Your task to perform on an android device: toggle pop-ups in chrome Image 0: 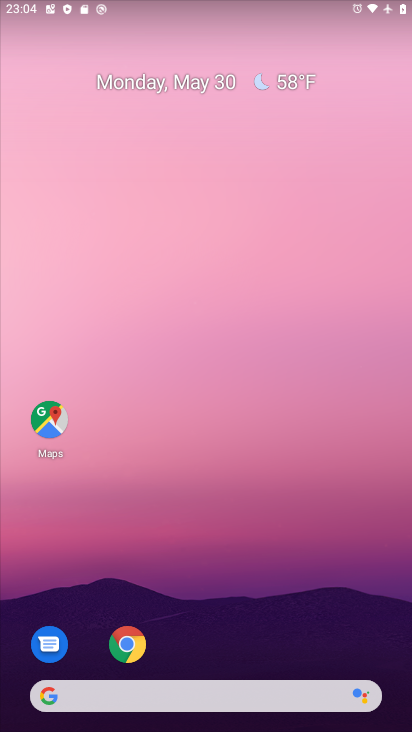
Step 0: click (133, 646)
Your task to perform on an android device: toggle pop-ups in chrome Image 1: 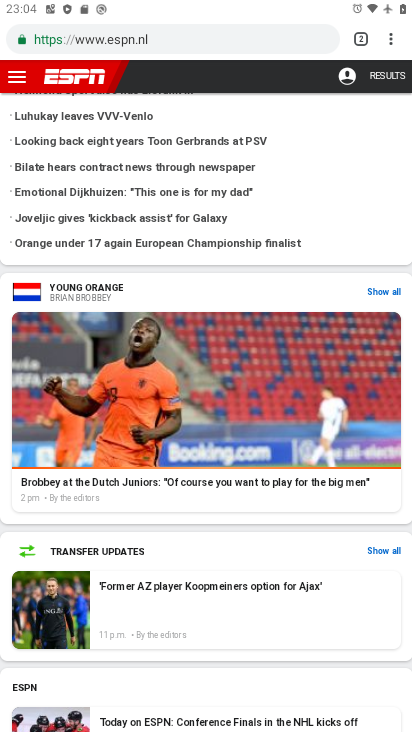
Step 1: click (388, 39)
Your task to perform on an android device: toggle pop-ups in chrome Image 2: 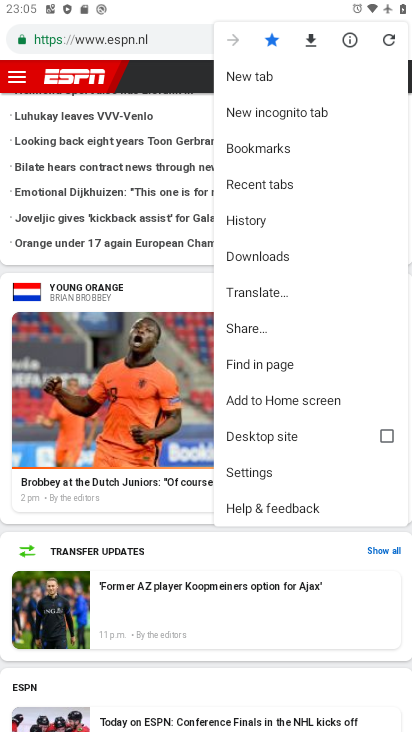
Step 2: click (264, 471)
Your task to perform on an android device: toggle pop-ups in chrome Image 3: 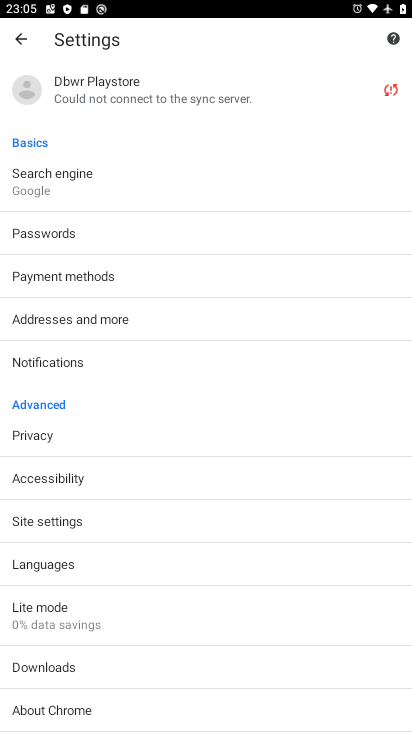
Step 3: click (53, 522)
Your task to perform on an android device: toggle pop-ups in chrome Image 4: 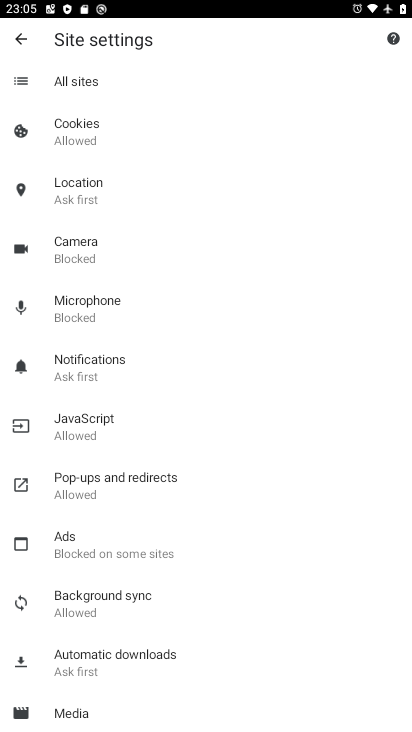
Step 4: click (56, 480)
Your task to perform on an android device: toggle pop-ups in chrome Image 5: 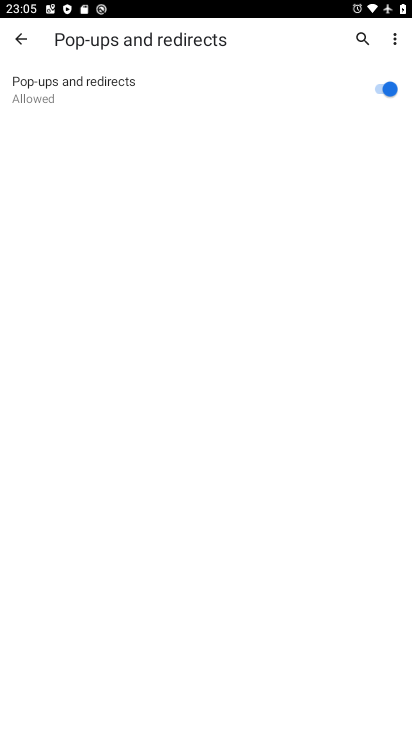
Step 5: click (377, 85)
Your task to perform on an android device: toggle pop-ups in chrome Image 6: 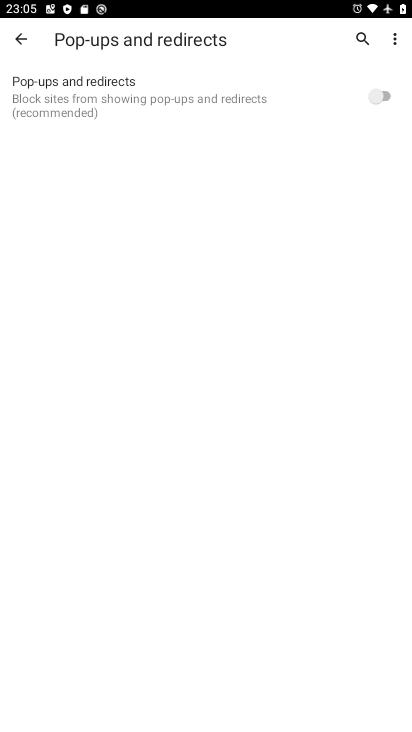
Step 6: task complete